Your task to perform on an android device: show emergency info Image 0: 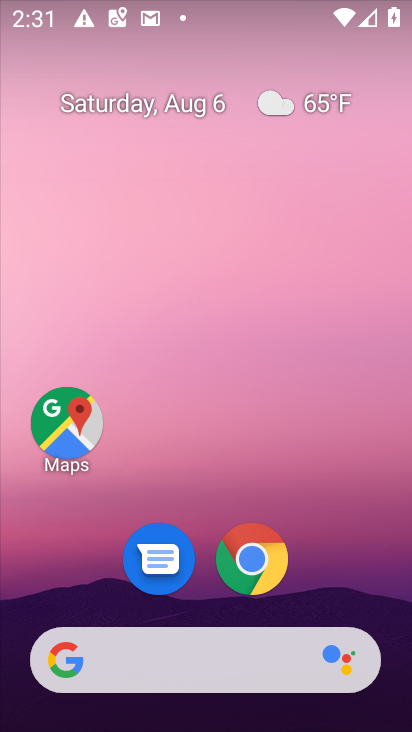
Step 0: drag from (211, 506) to (207, 202)
Your task to perform on an android device: show emergency info Image 1: 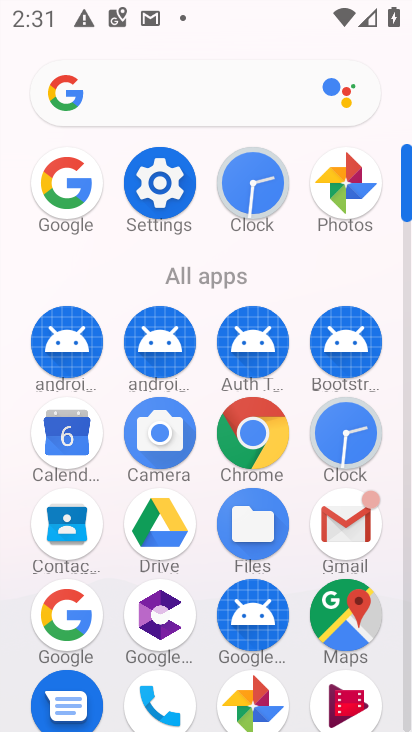
Step 1: click (180, 188)
Your task to perform on an android device: show emergency info Image 2: 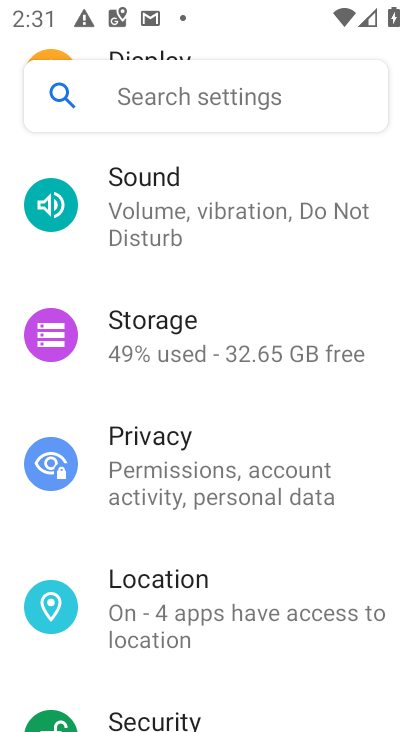
Step 2: drag from (222, 636) to (225, 245)
Your task to perform on an android device: show emergency info Image 3: 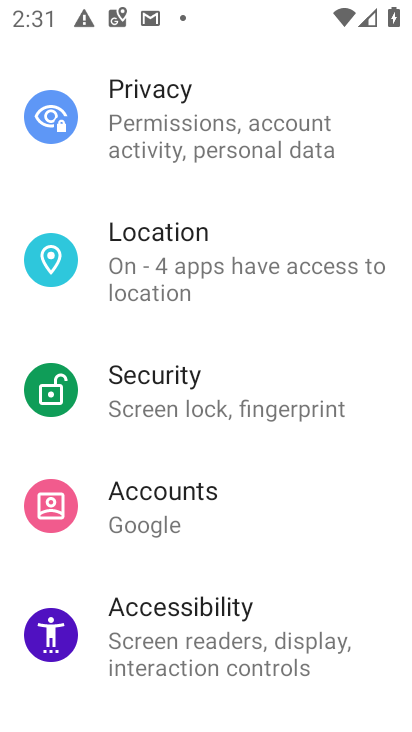
Step 3: drag from (214, 605) to (250, 126)
Your task to perform on an android device: show emergency info Image 4: 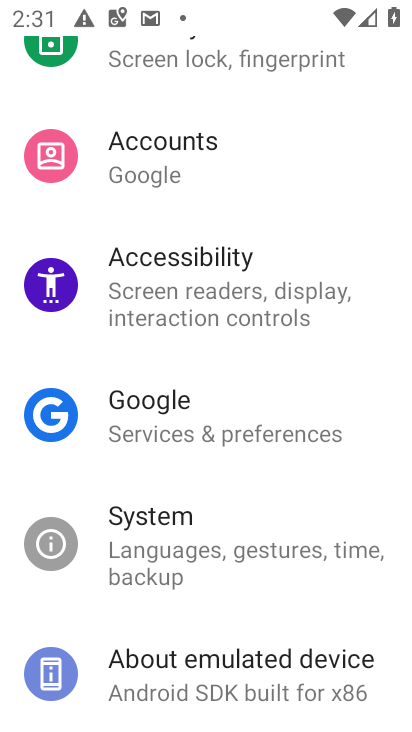
Step 4: drag from (226, 712) to (264, 292)
Your task to perform on an android device: show emergency info Image 5: 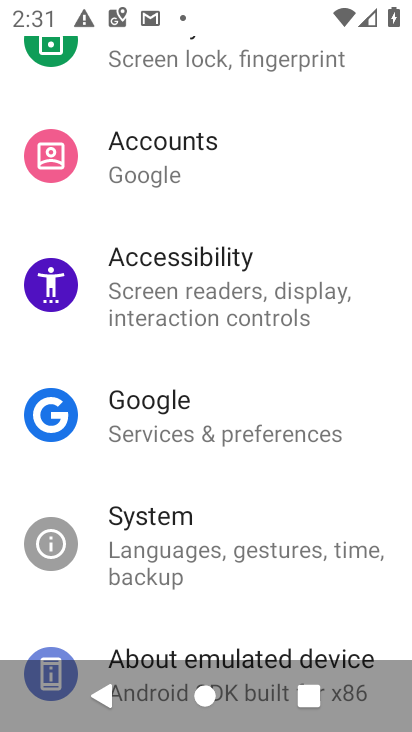
Step 5: click (258, 636)
Your task to perform on an android device: show emergency info Image 6: 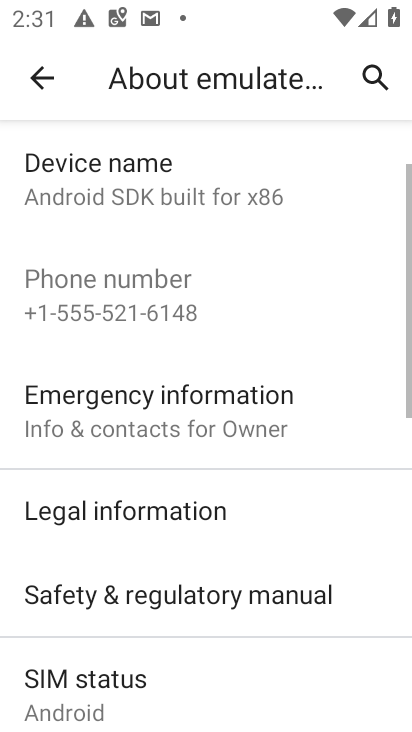
Step 6: click (179, 425)
Your task to perform on an android device: show emergency info Image 7: 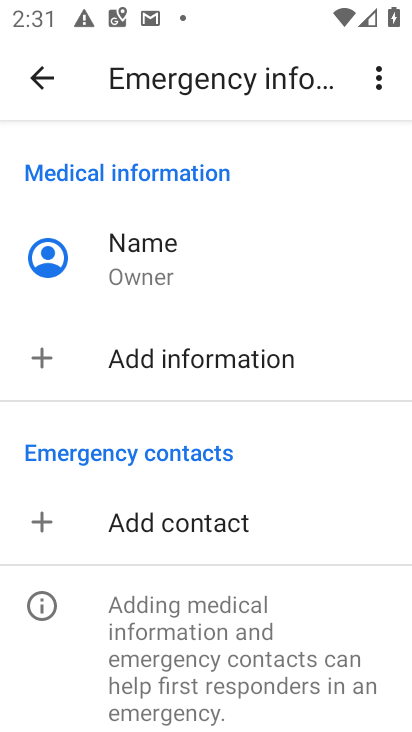
Step 7: task complete